Your task to perform on an android device: empty trash in the gmail app Image 0: 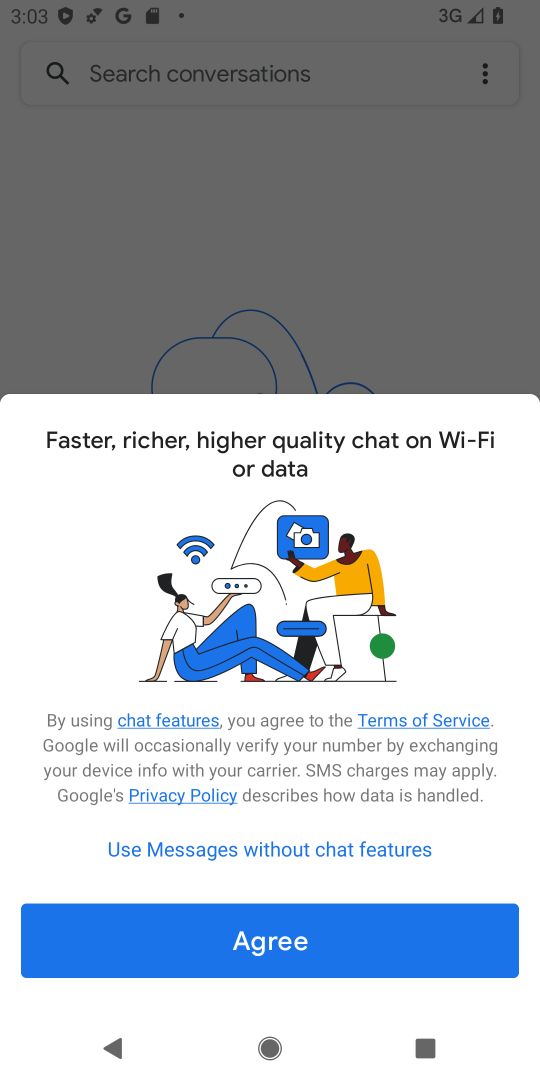
Step 0: press back button
Your task to perform on an android device: empty trash in the gmail app Image 1: 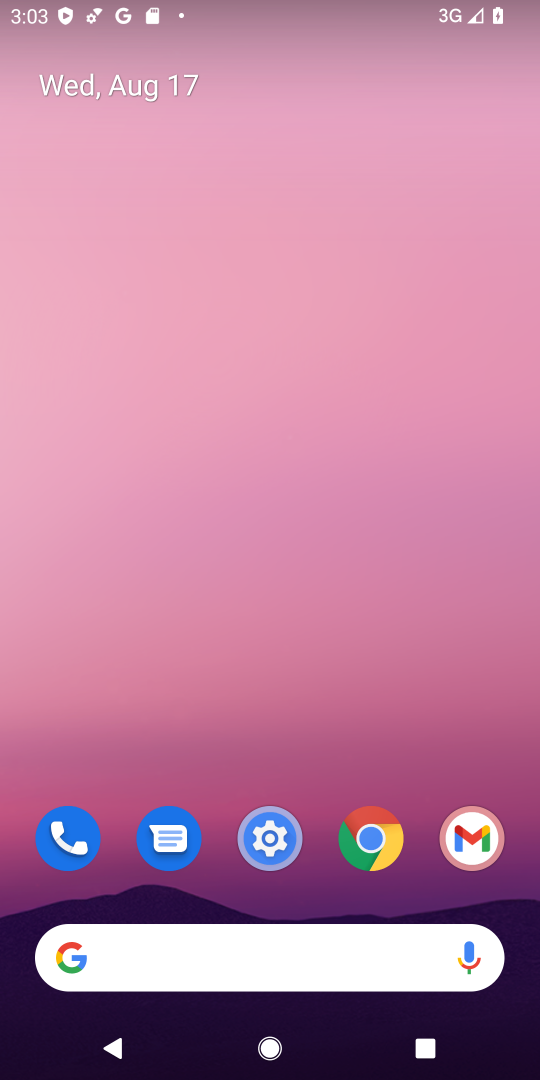
Step 1: click (465, 834)
Your task to perform on an android device: empty trash in the gmail app Image 2: 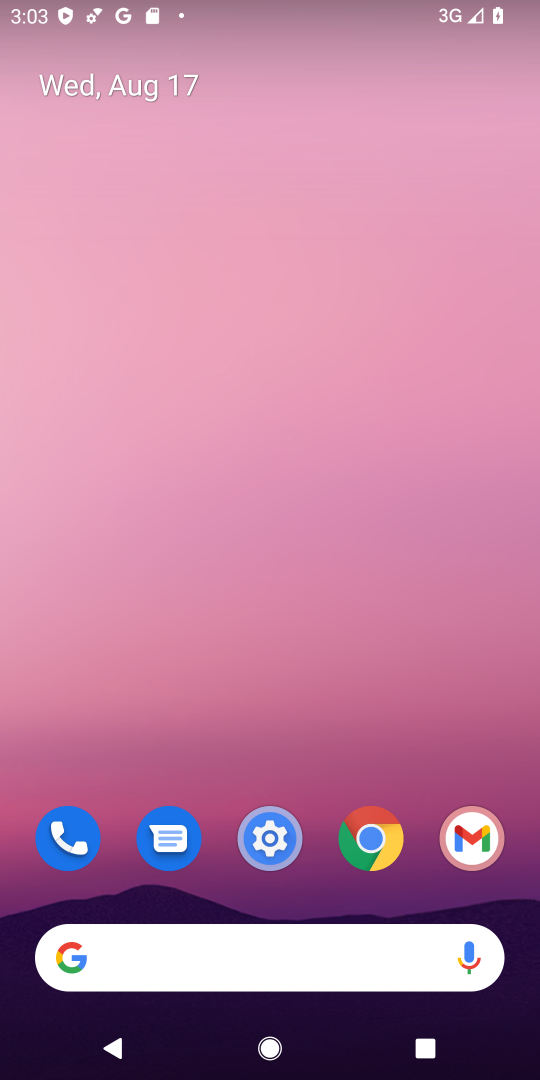
Step 2: click (492, 826)
Your task to perform on an android device: empty trash in the gmail app Image 3: 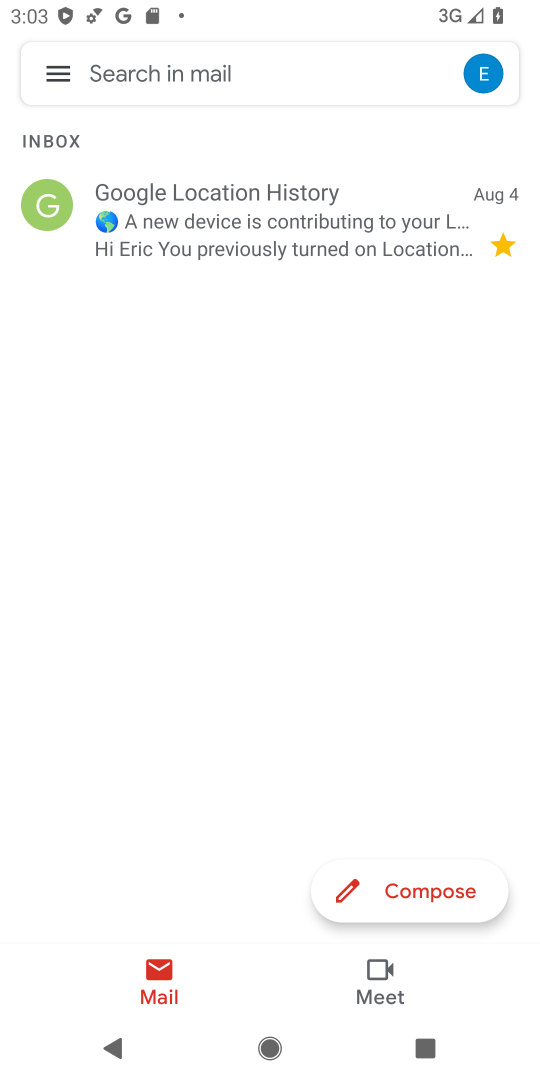
Step 3: click (65, 67)
Your task to perform on an android device: empty trash in the gmail app Image 4: 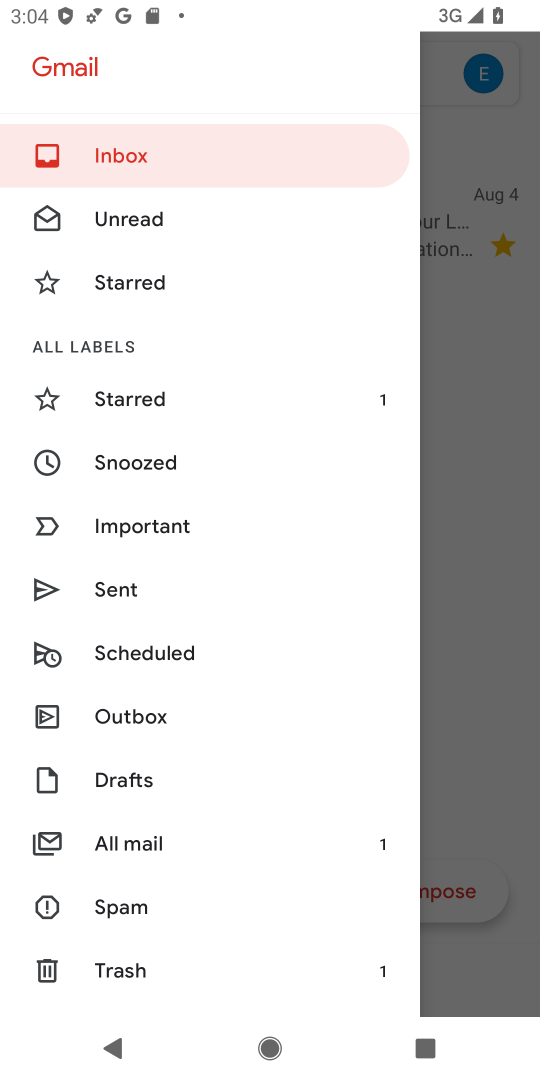
Step 4: click (119, 967)
Your task to perform on an android device: empty trash in the gmail app Image 5: 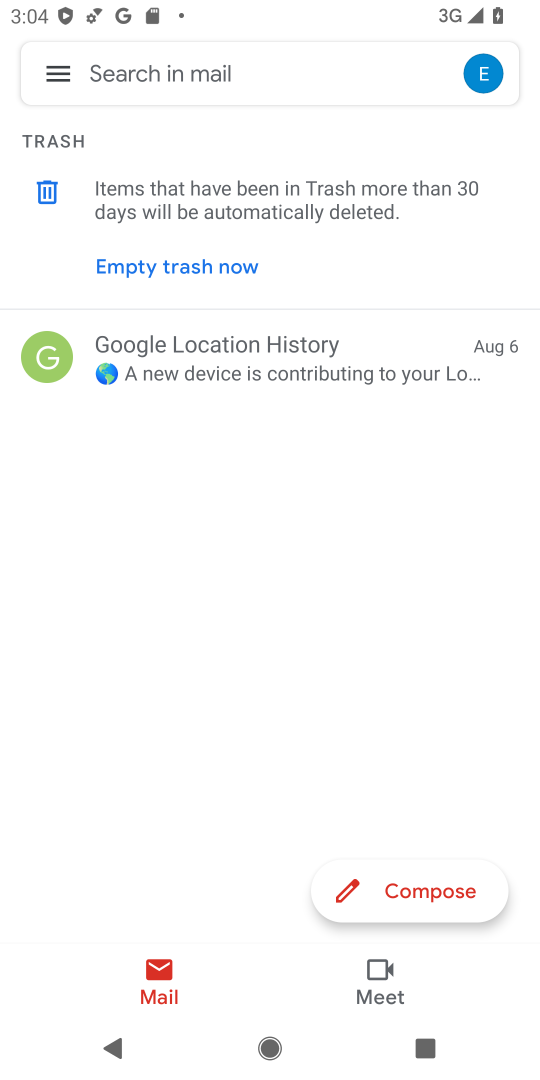
Step 5: click (200, 281)
Your task to perform on an android device: empty trash in the gmail app Image 6: 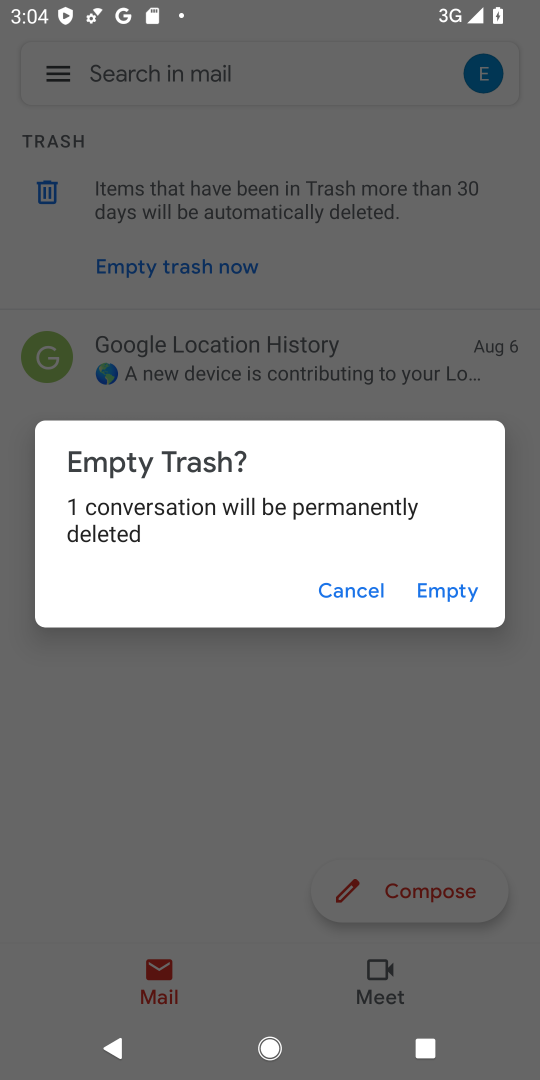
Step 6: click (433, 586)
Your task to perform on an android device: empty trash in the gmail app Image 7: 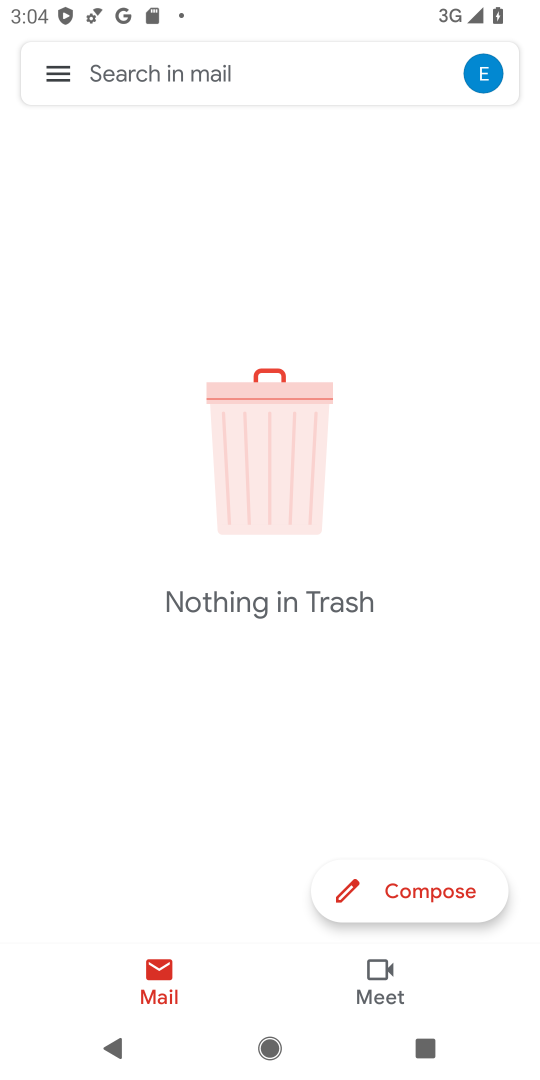
Step 7: task complete